Your task to perform on an android device: open app "Upside-Cash back on gas & food" (install if not already installed) Image 0: 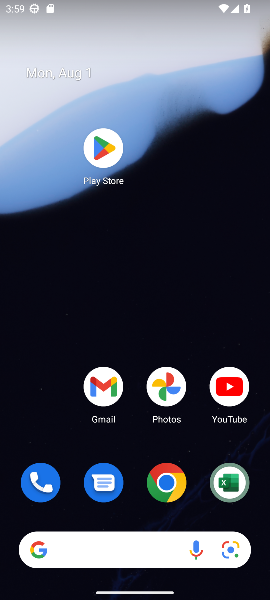
Step 0: click (108, 146)
Your task to perform on an android device: open app "Upside-Cash back on gas & food" (install if not already installed) Image 1: 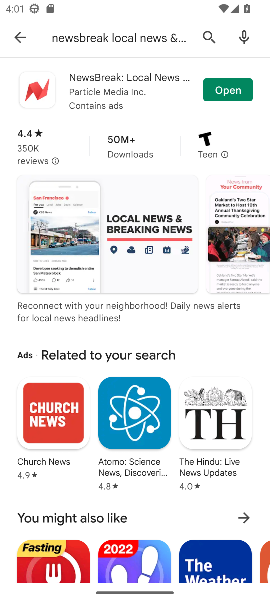
Step 1: press home button
Your task to perform on an android device: open app "Upside-Cash back on gas & food" (install if not already installed) Image 2: 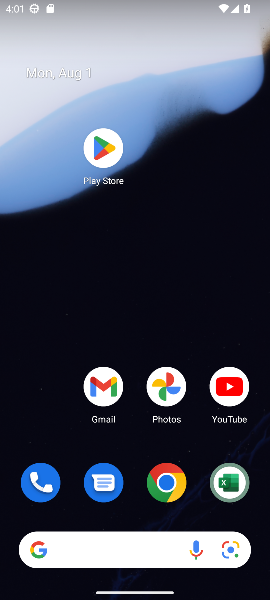
Step 2: click (104, 146)
Your task to perform on an android device: open app "Upside-Cash back on gas & food" (install if not already installed) Image 3: 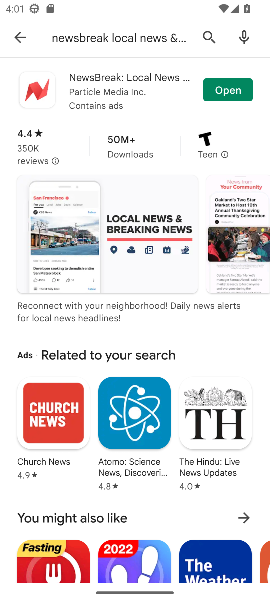
Step 3: click (205, 31)
Your task to perform on an android device: open app "Upside-Cash back on gas & food" (install if not already installed) Image 4: 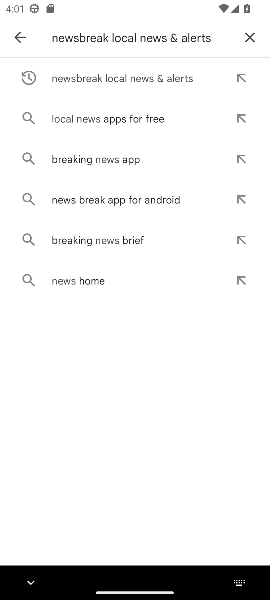
Step 4: type "Upside-Cash back on gas & food"
Your task to perform on an android device: open app "Upside-Cash back on gas & food" (install if not already installed) Image 5: 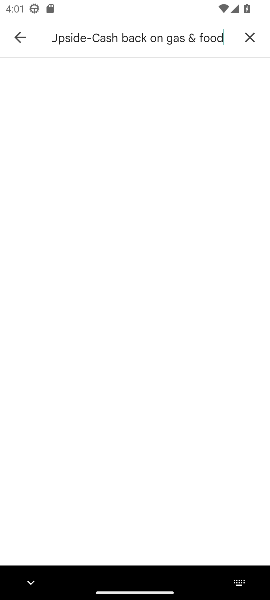
Step 5: click (247, 31)
Your task to perform on an android device: open app "Upside-Cash back on gas & food" (install if not already installed) Image 6: 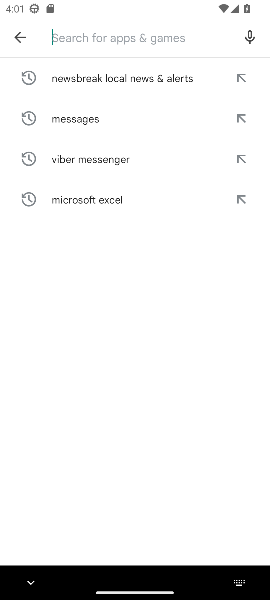
Step 6: type "Upside-Cash back on gas & food"
Your task to perform on an android device: open app "Upside-Cash back on gas & food" (install if not already installed) Image 7: 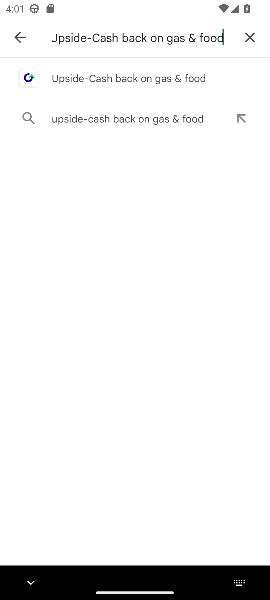
Step 7: click (94, 80)
Your task to perform on an android device: open app "Upside-Cash back on gas & food" (install if not already installed) Image 8: 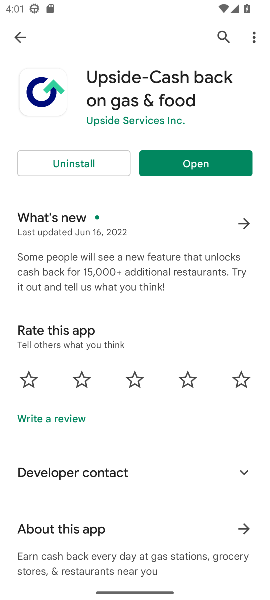
Step 8: click (200, 166)
Your task to perform on an android device: open app "Upside-Cash back on gas & food" (install if not already installed) Image 9: 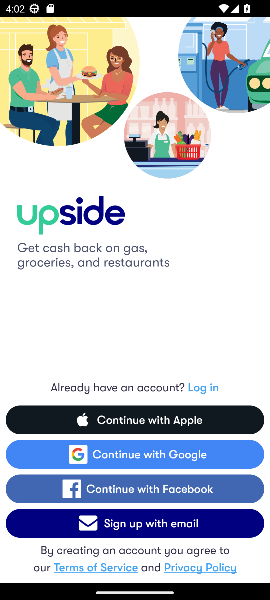
Step 9: task complete